Your task to perform on an android device: create a new album in the google photos Image 0: 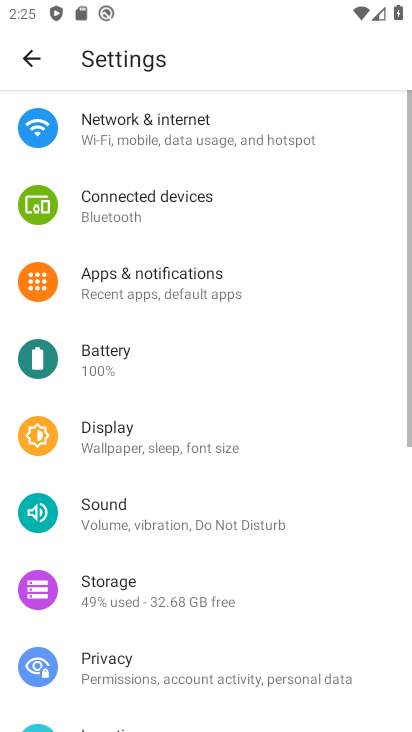
Step 0: press home button
Your task to perform on an android device: create a new album in the google photos Image 1: 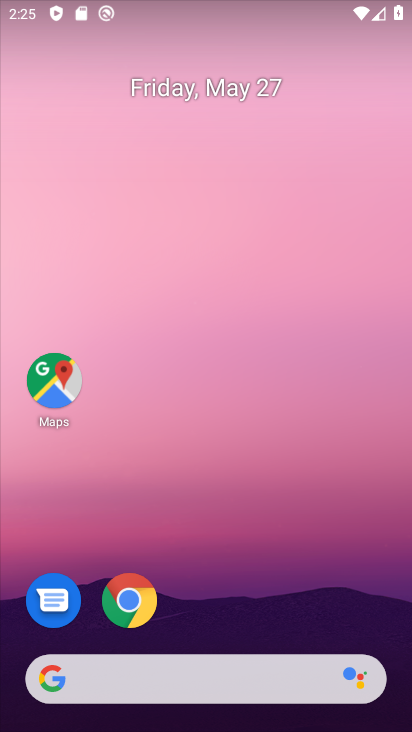
Step 1: drag from (218, 725) to (212, 21)
Your task to perform on an android device: create a new album in the google photos Image 2: 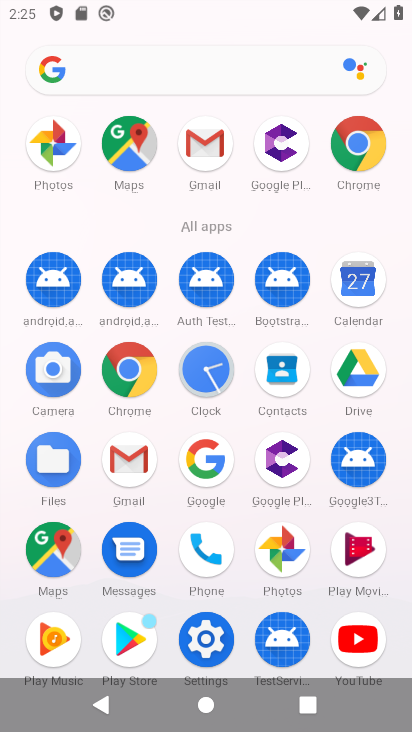
Step 2: click (274, 536)
Your task to perform on an android device: create a new album in the google photos Image 3: 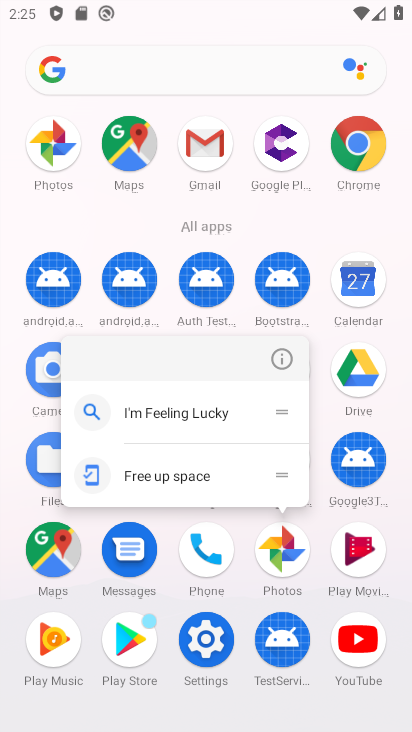
Step 3: click (275, 535)
Your task to perform on an android device: create a new album in the google photos Image 4: 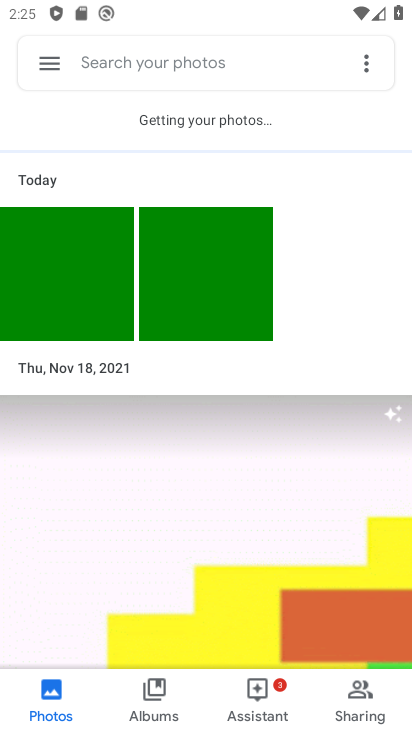
Step 4: click (368, 69)
Your task to perform on an android device: create a new album in the google photos Image 5: 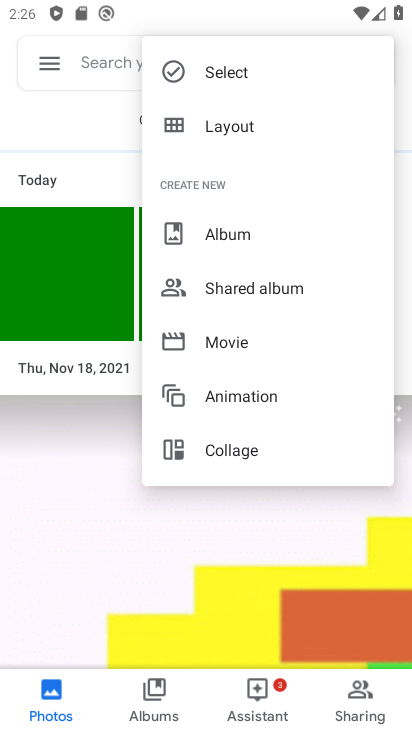
Step 5: click (227, 232)
Your task to perform on an android device: create a new album in the google photos Image 6: 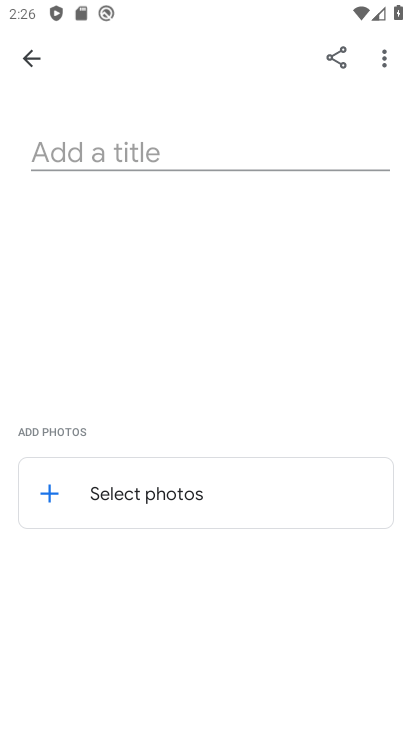
Step 6: click (179, 149)
Your task to perform on an android device: create a new album in the google photos Image 7: 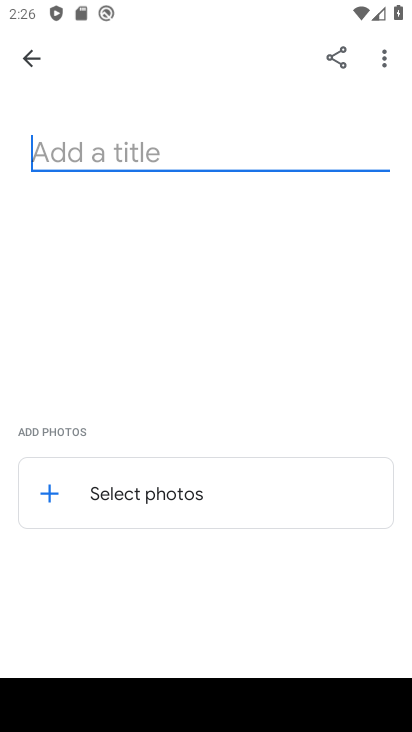
Step 7: type "hulk"
Your task to perform on an android device: create a new album in the google photos Image 8: 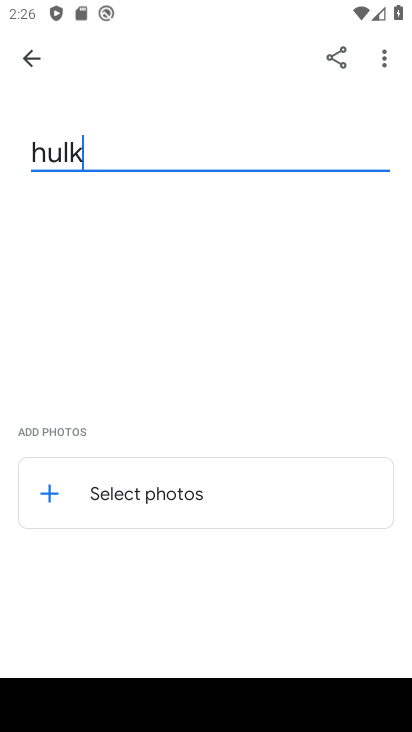
Step 8: click (121, 489)
Your task to perform on an android device: create a new album in the google photos Image 9: 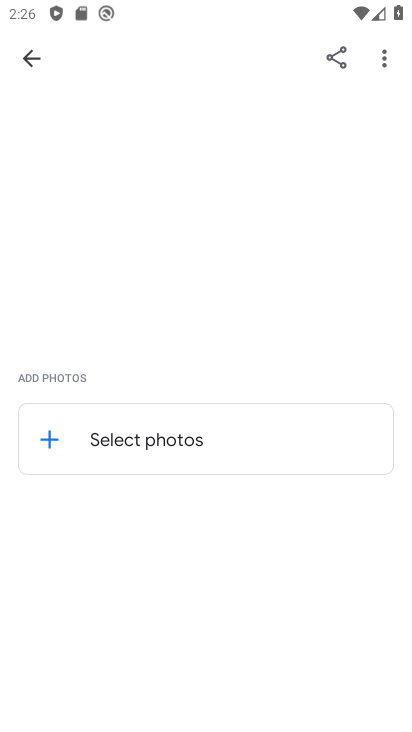
Step 9: click (48, 435)
Your task to perform on an android device: create a new album in the google photos Image 10: 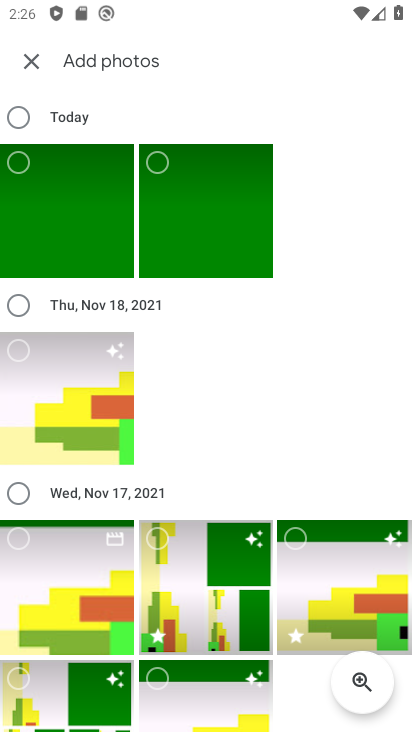
Step 10: click (20, 352)
Your task to perform on an android device: create a new album in the google photos Image 11: 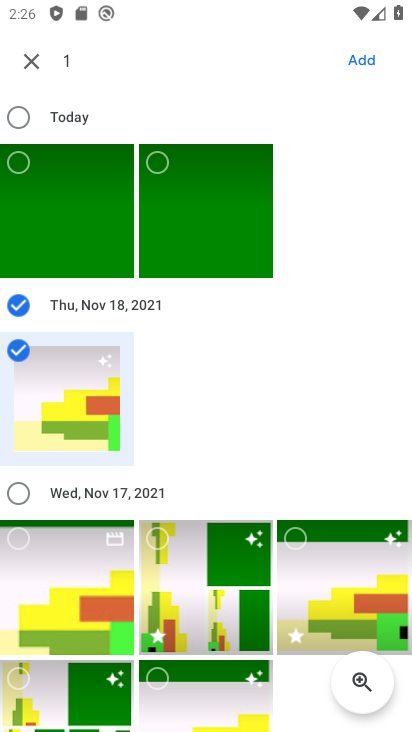
Step 11: click (369, 55)
Your task to perform on an android device: create a new album in the google photos Image 12: 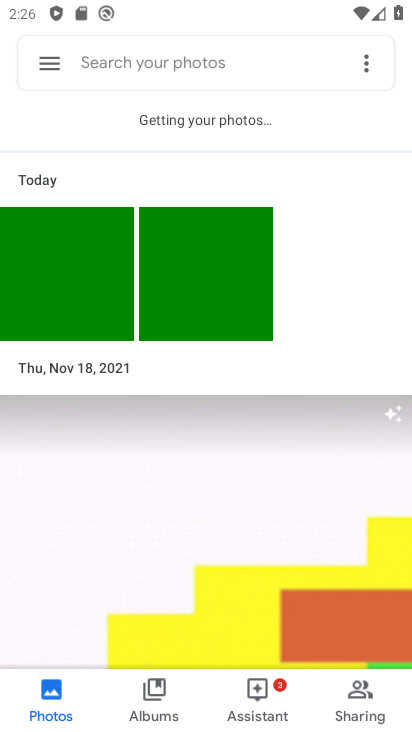
Step 12: task complete